Your task to perform on an android device: turn on priority inbox in the gmail app Image 0: 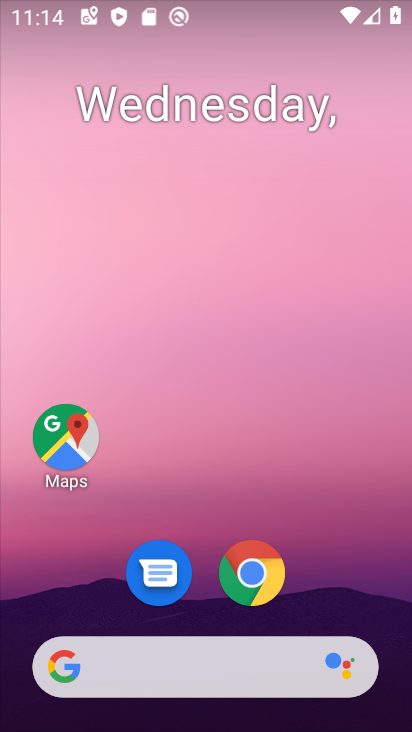
Step 0: drag from (179, 638) to (171, 337)
Your task to perform on an android device: turn on priority inbox in the gmail app Image 1: 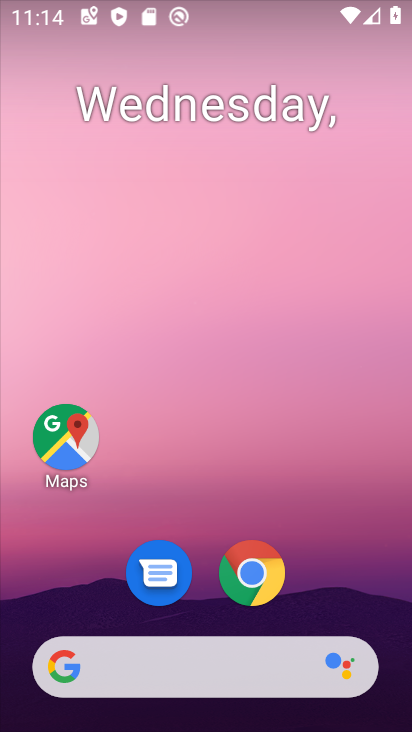
Step 1: drag from (203, 640) to (178, 219)
Your task to perform on an android device: turn on priority inbox in the gmail app Image 2: 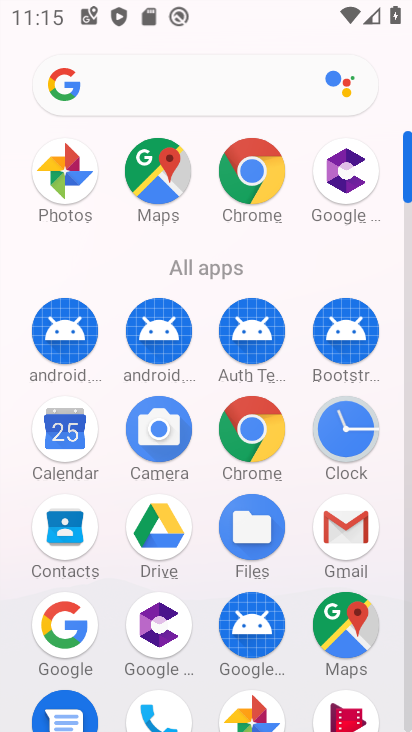
Step 2: drag from (207, 710) to (207, 359)
Your task to perform on an android device: turn on priority inbox in the gmail app Image 3: 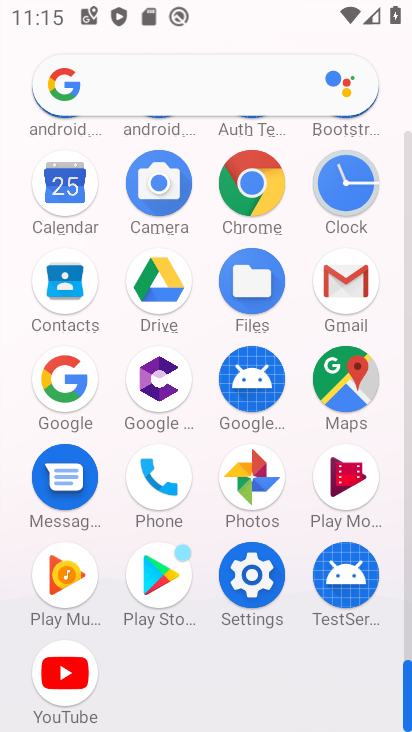
Step 3: click (318, 285)
Your task to perform on an android device: turn on priority inbox in the gmail app Image 4: 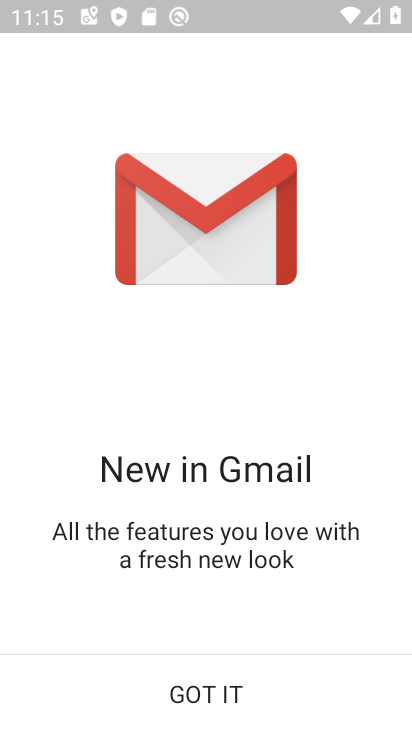
Step 4: click (224, 687)
Your task to perform on an android device: turn on priority inbox in the gmail app Image 5: 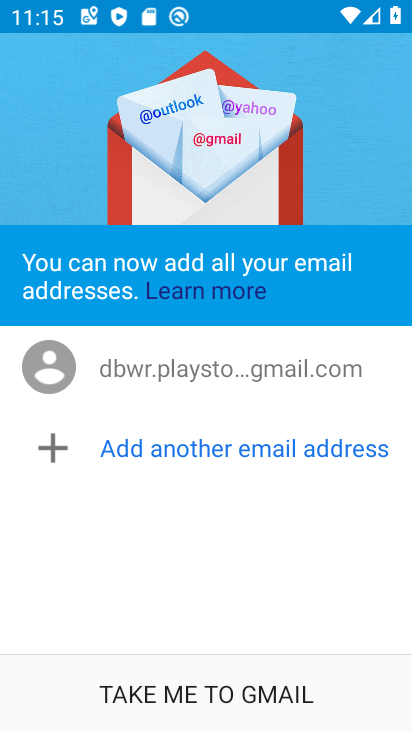
Step 5: click (226, 686)
Your task to perform on an android device: turn on priority inbox in the gmail app Image 6: 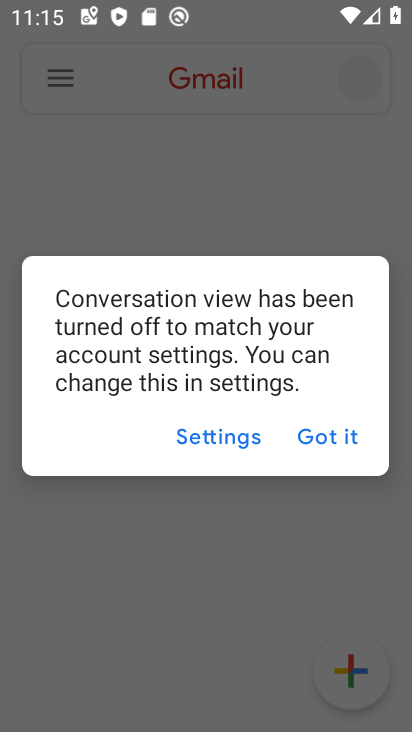
Step 6: click (341, 437)
Your task to perform on an android device: turn on priority inbox in the gmail app Image 7: 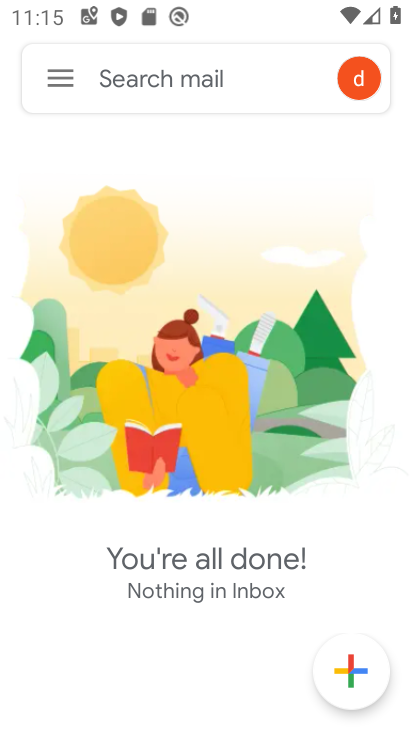
Step 7: click (64, 77)
Your task to perform on an android device: turn on priority inbox in the gmail app Image 8: 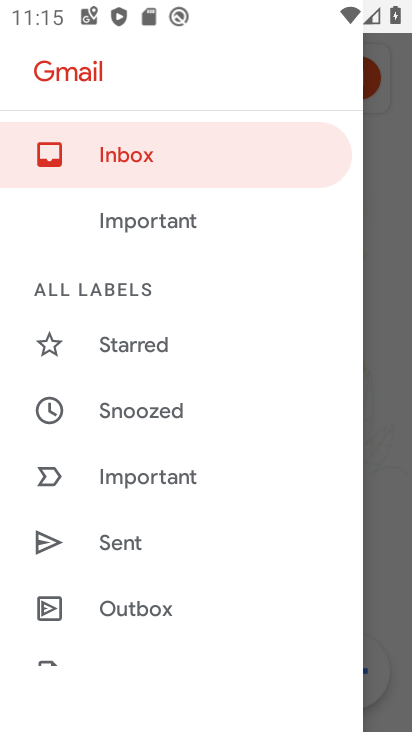
Step 8: drag from (149, 658) to (150, 204)
Your task to perform on an android device: turn on priority inbox in the gmail app Image 9: 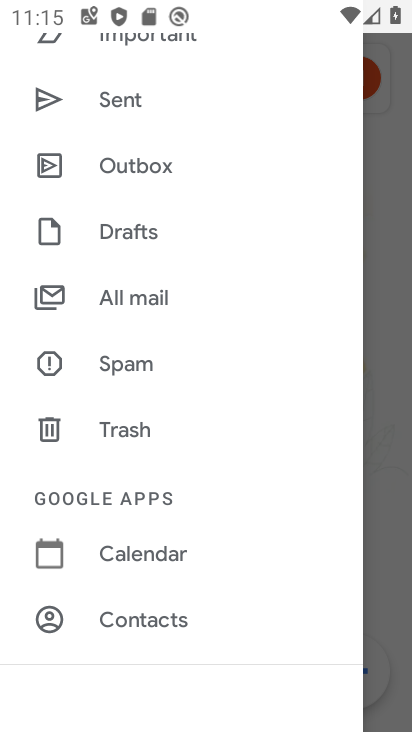
Step 9: drag from (177, 641) to (178, 314)
Your task to perform on an android device: turn on priority inbox in the gmail app Image 10: 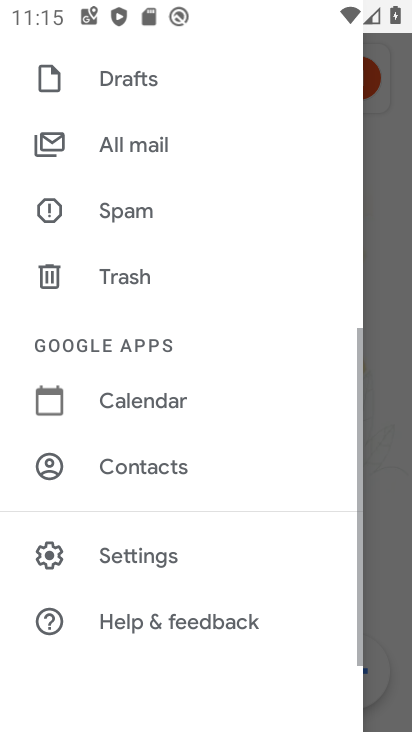
Step 10: click (154, 555)
Your task to perform on an android device: turn on priority inbox in the gmail app Image 11: 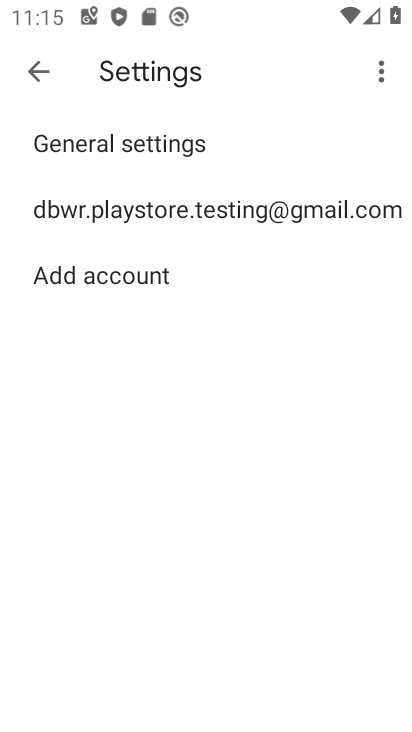
Step 11: click (137, 206)
Your task to perform on an android device: turn on priority inbox in the gmail app Image 12: 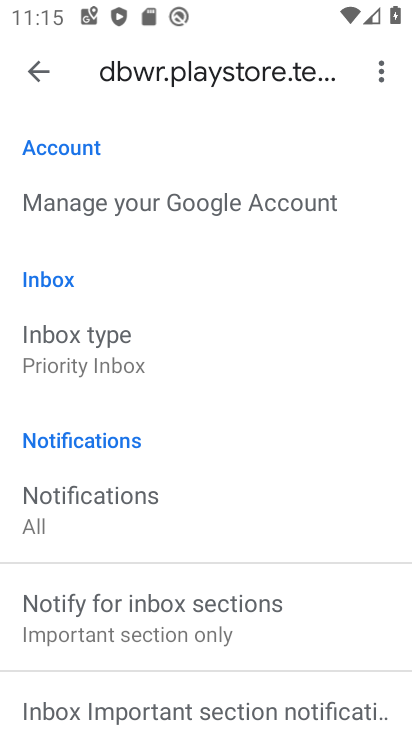
Step 12: task complete